Your task to perform on an android device: Go to sound settings Image 0: 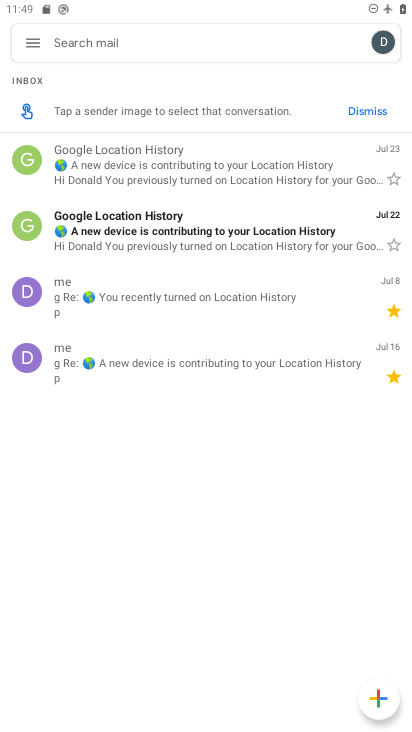
Step 0: press home button
Your task to perform on an android device: Go to sound settings Image 1: 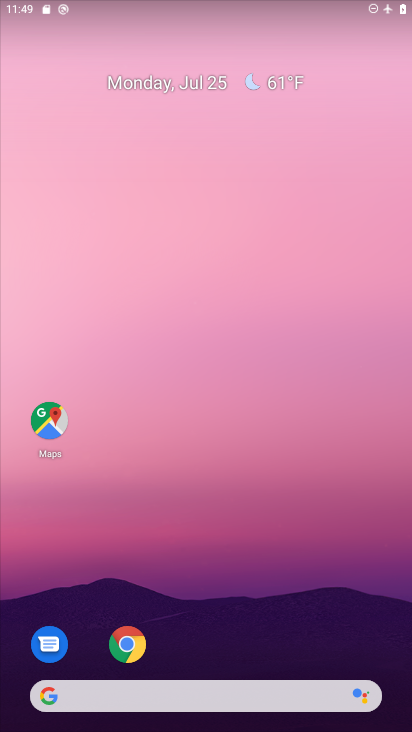
Step 1: drag from (243, 574) to (211, 368)
Your task to perform on an android device: Go to sound settings Image 2: 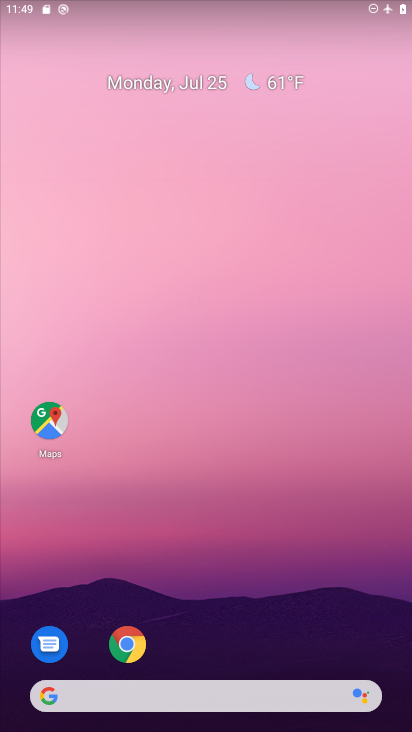
Step 2: drag from (245, 622) to (193, 299)
Your task to perform on an android device: Go to sound settings Image 3: 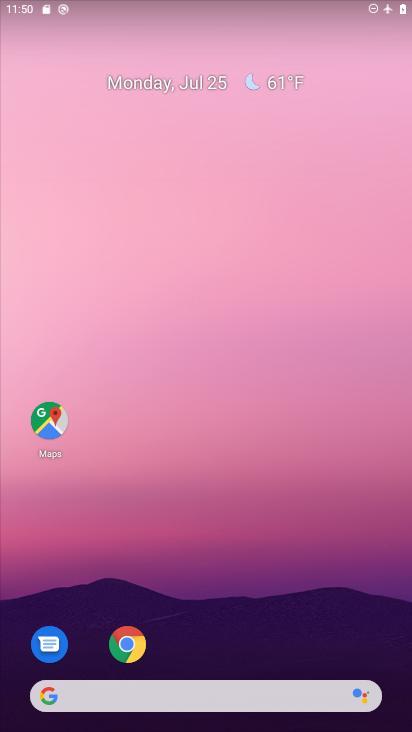
Step 3: drag from (242, 652) to (137, 105)
Your task to perform on an android device: Go to sound settings Image 4: 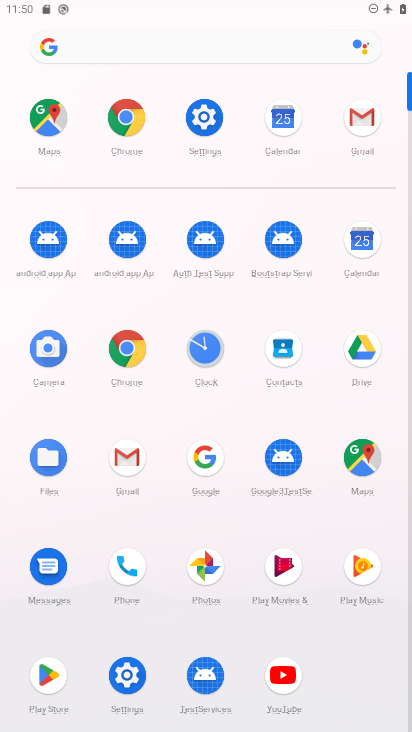
Step 4: click (202, 116)
Your task to perform on an android device: Go to sound settings Image 5: 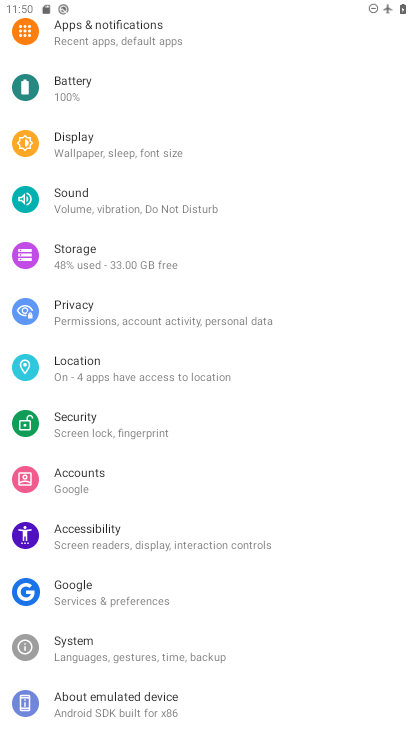
Step 5: click (97, 188)
Your task to perform on an android device: Go to sound settings Image 6: 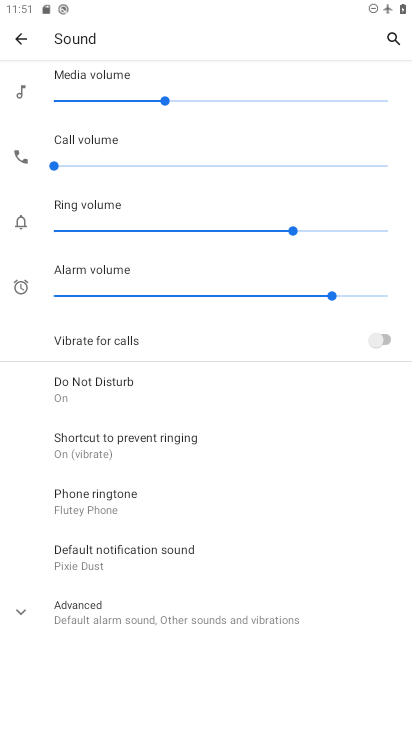
Step 6: task complete